Your task to perform on an android device: uninstall "Skype" Image 0: 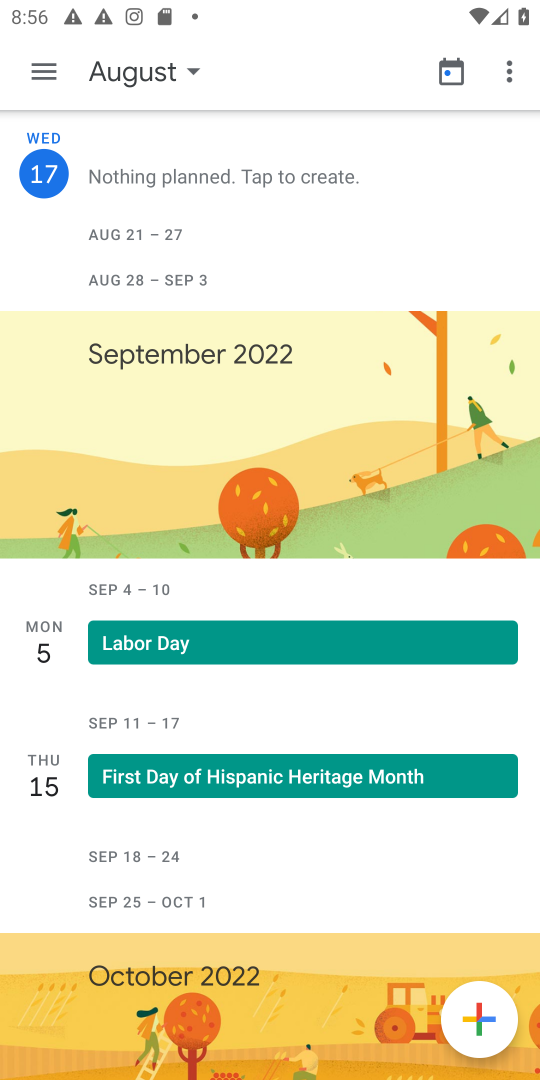
Step 0: press home button
Your task to perform on an android device: uninstall "Skype" Image 1: 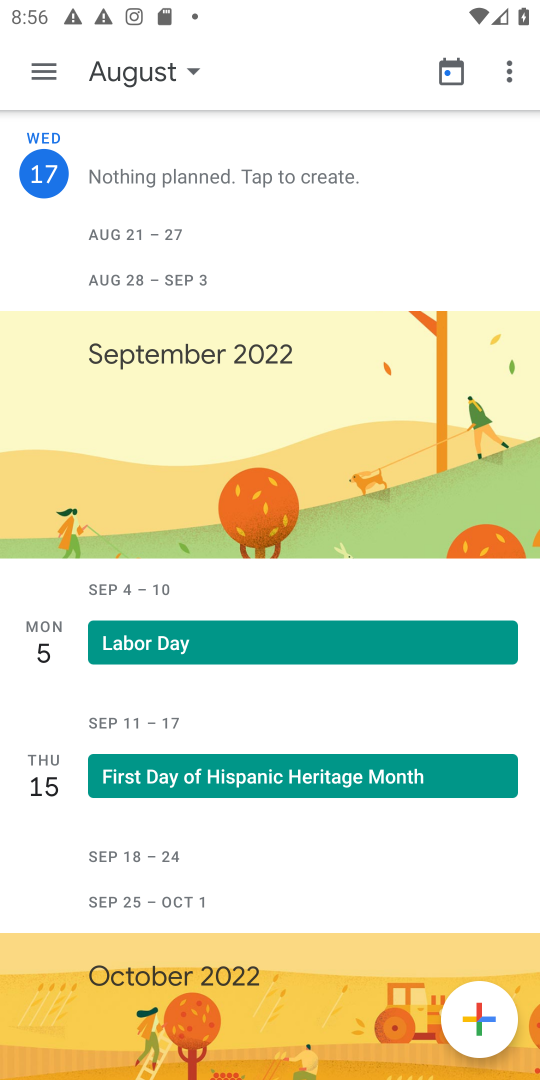
Step 1: press home button
Your task to perform on an android device: uninstall "Skype" Image 2: 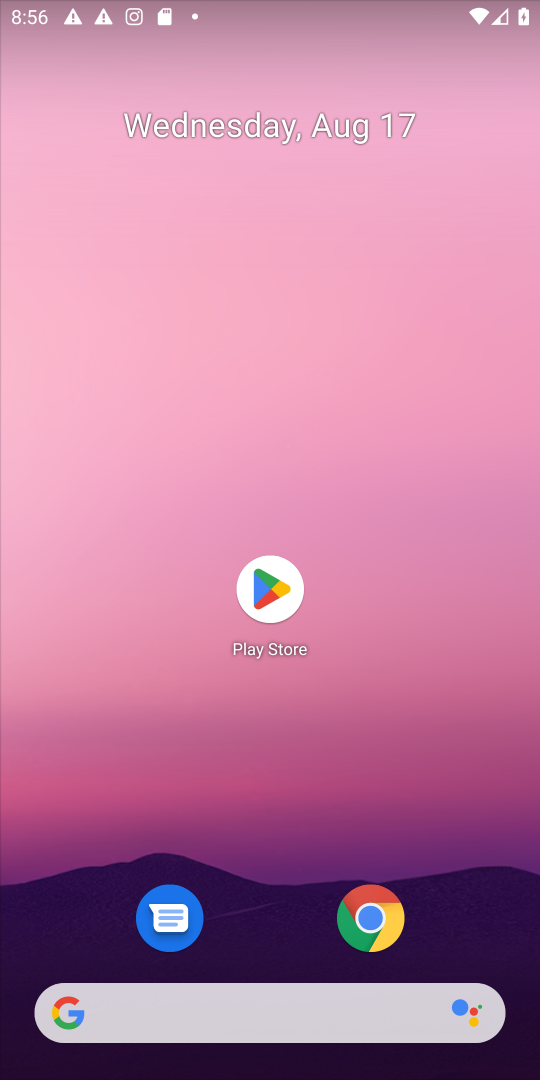
Step 2: click (262, 584)
Your task to perform on an android device: uninstall "Skype" Image 3: 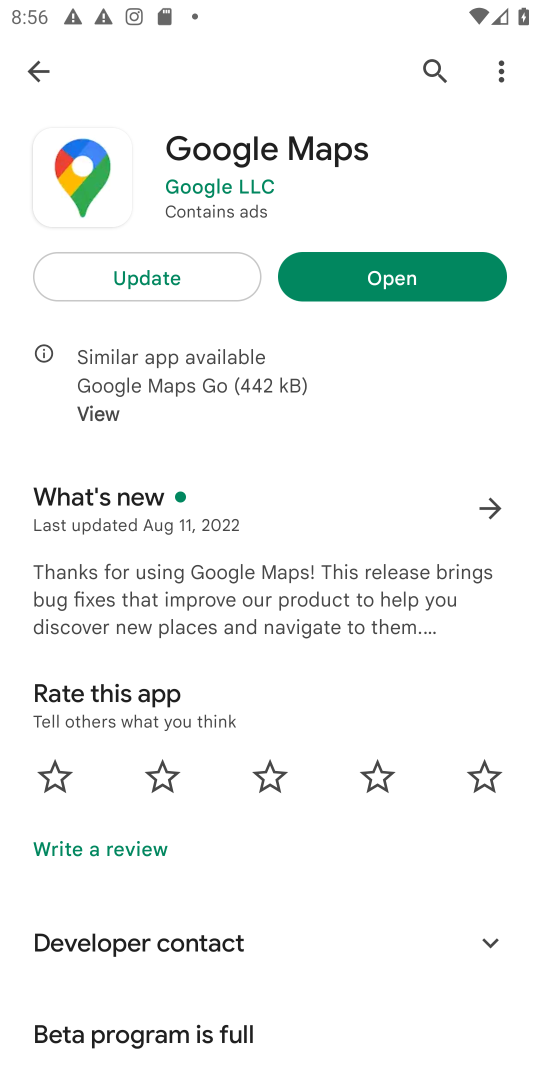
Step 3: click (425, 64)
Your task to perform on an android device: uninstall "Skype" Image 4: 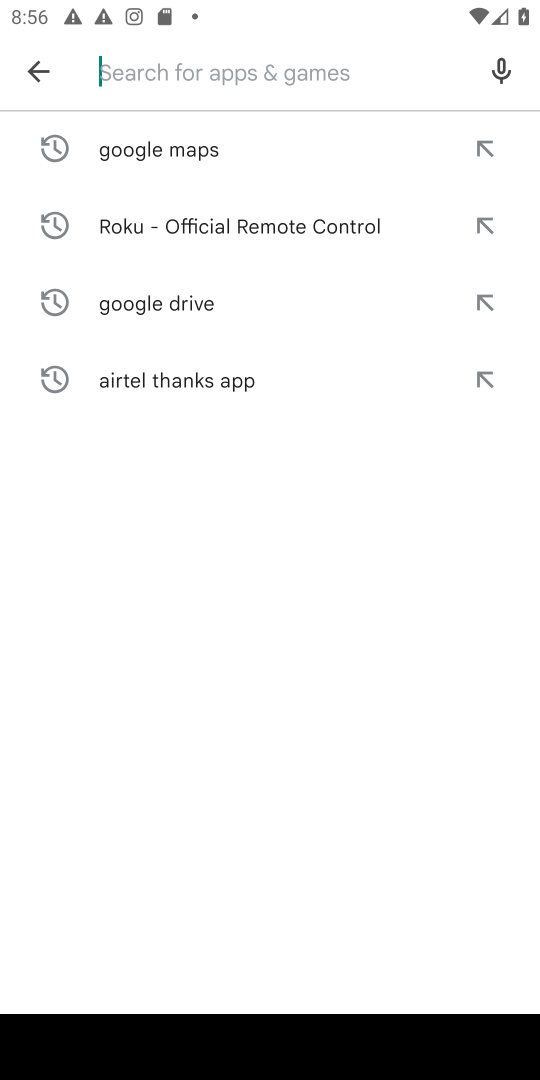
Step 4: type "Skype"
Your task to perform on an android device: uninstall "Skype" Image 5: 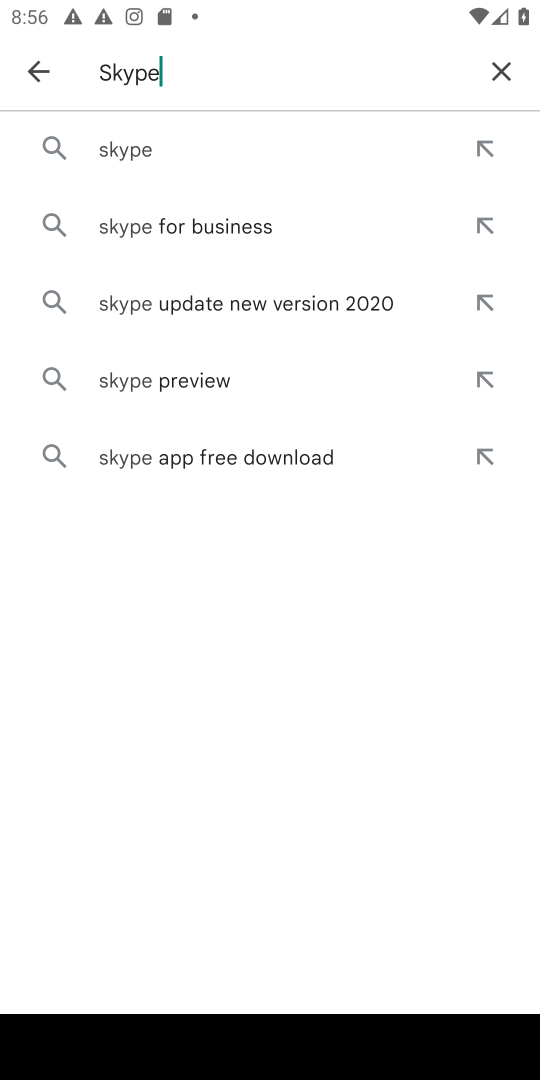
Step 5: click (138, 146)
Your task to perform on an android device: uninstall "Skype" Image 6: 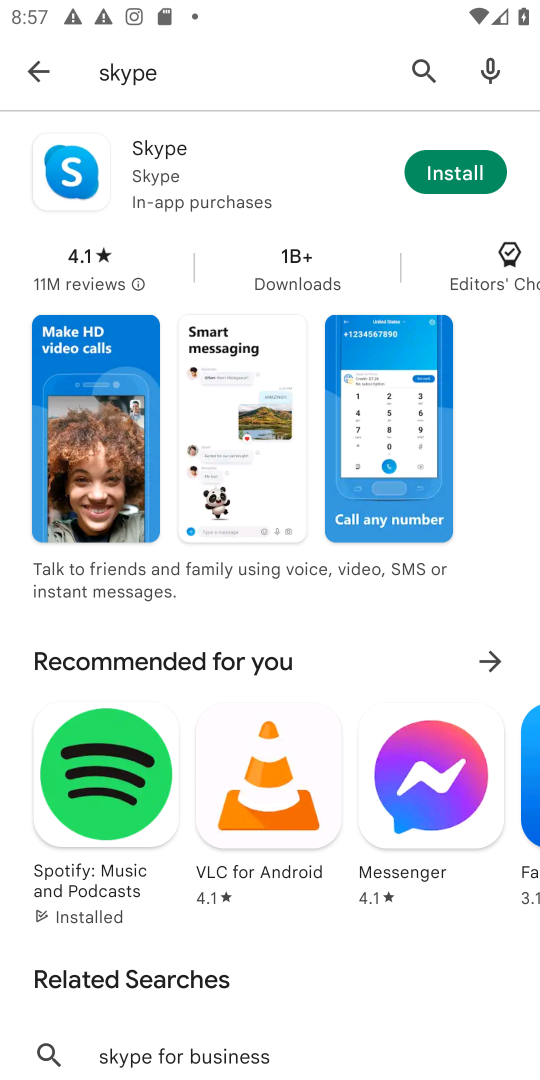
Step 6: task complete